Your task to perform on an android device: Is it going to rain tomorrow? Image 0: 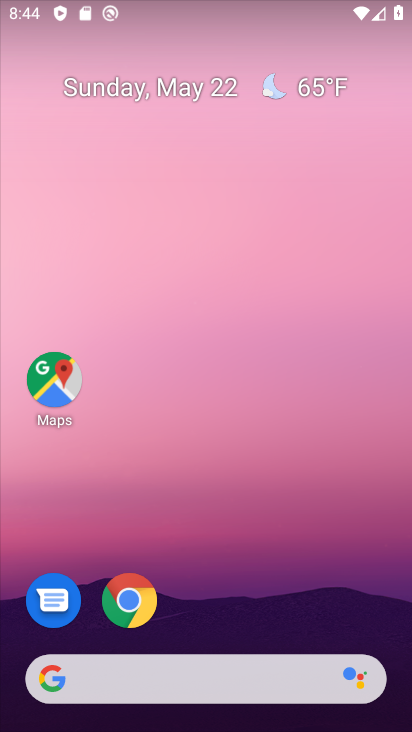
Step 0: drag from (230, 594) to (172, 227)
Your task to perform on an android device: Is it going to rain tomorrow? Image 1: 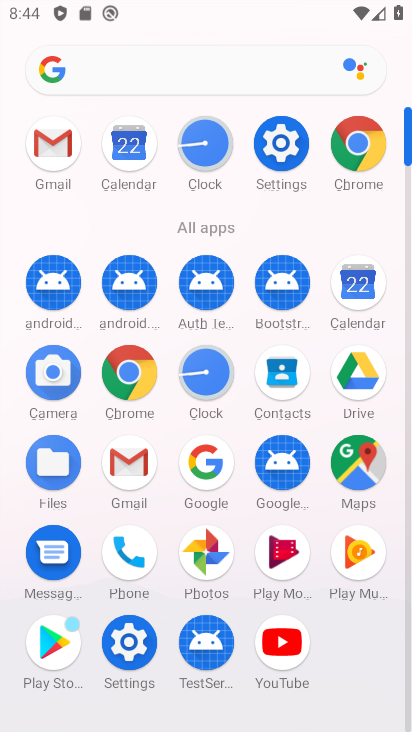
Step 1: click (198, 483)
Your task to perform on an android device: Is it going to rain tomorrow? Image 2: 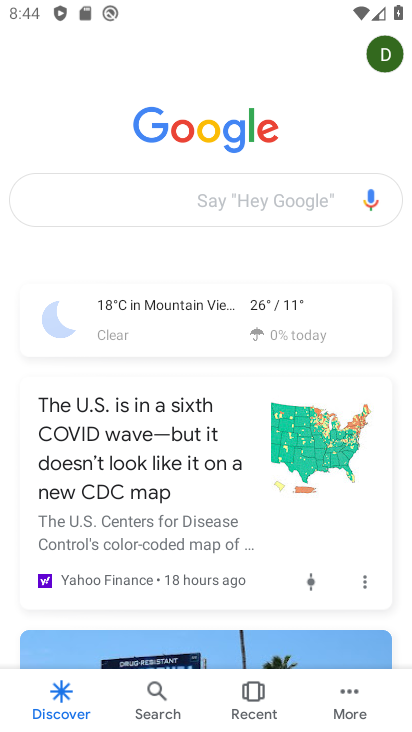
Step 2: click (164, 196)
Your task to perform on an android device: Is it going to rain tomorrow? Image 3: 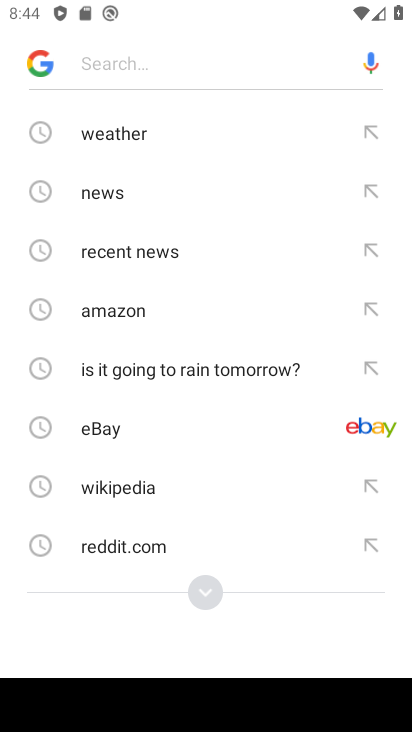
Step 3: click (122, 131)
Your task to perform on an android device: Is it going to rain tomorrow? Image 4: 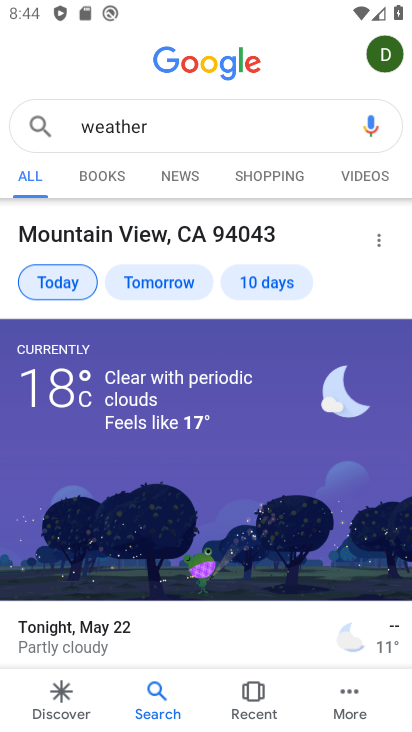
Step 4: click (160, 263)
Your task to perform on an android device: Is it going to rain tomorrow? Image 5: 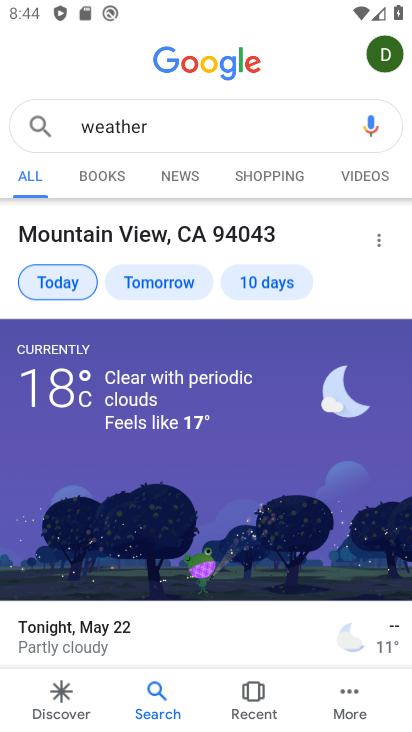
Step 5: click (155, 282)
Your task to perform on an android device: Is it going to rain tomorrow? Image 6: 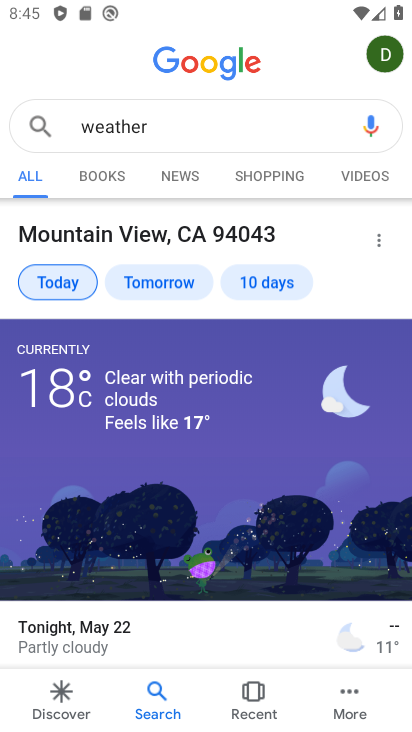
Step 6: click (155, 282)
Your task to perform on an android device: Is it going to rain tomorrow? Image 7: 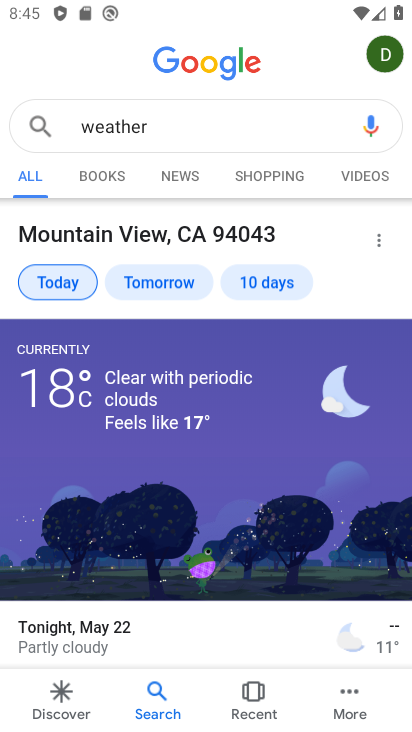
Step 7: click (155, 282)
Your task to perform on an android device: Is it going to rain tomorrow? Image 8: 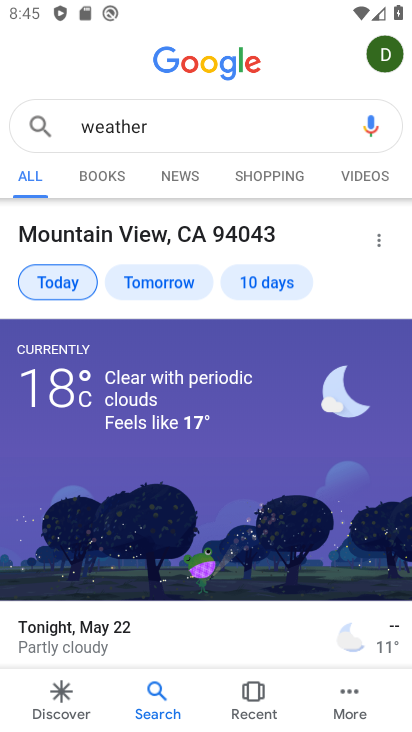
Step 8: click (155, 282)
Your task to perform on an android device: Is it going to rain tomorrow? Image 9: 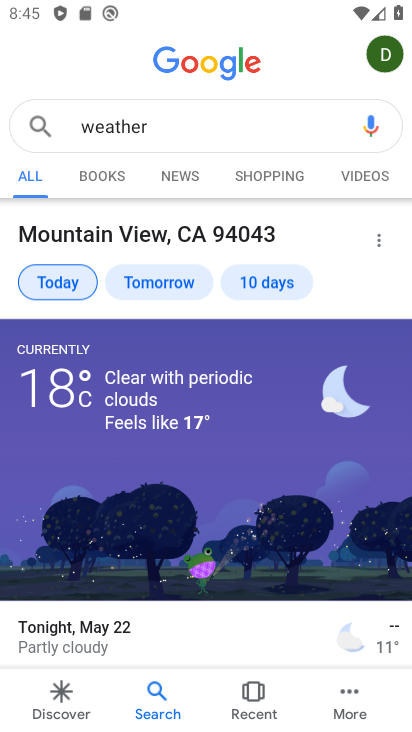
Step 9: click (155, 282)
Your task to perform on an android device: Is it going to rain tomorrow? Image 10: 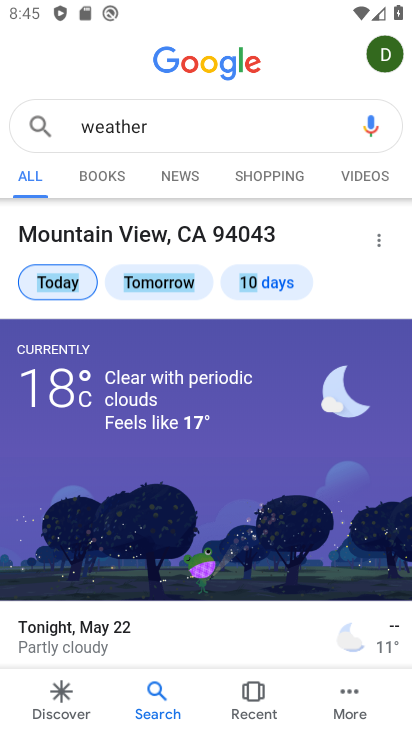
Step 10: click (155, 282)
Your task to perform on an android device: Is it going to rain tomorrow? Image 11: 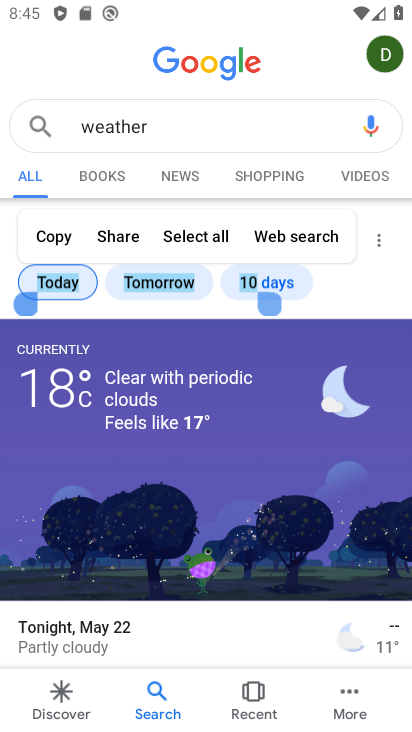
Step 11: click (155, 282)
Your task to perform on an android device: Is it going to rain tomorrow? Image 12: 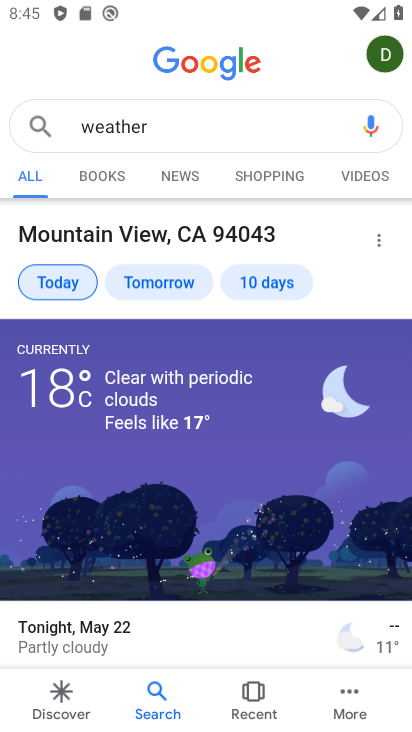
Step 12: click (155, 282)
Your task to perform on an android device: Is it going to rain tomorrow? Image 13: 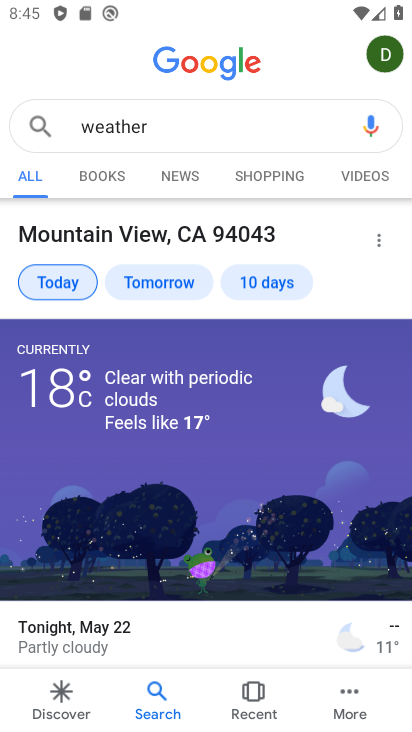
Step 13: click (164, 284)
Your task to perform on an android device: Is it going to rain tomorrow? Image 14: 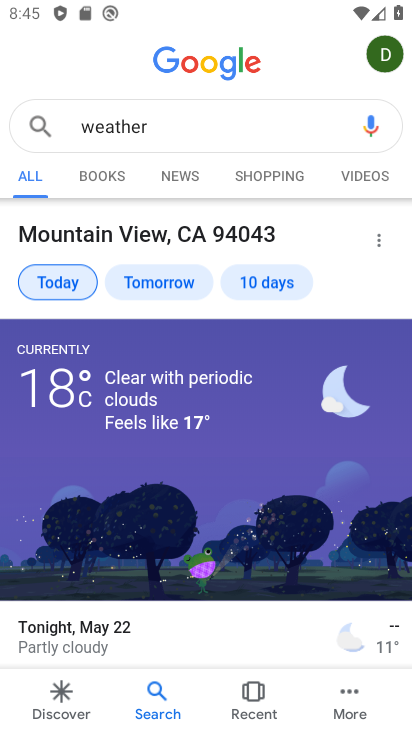
Step 14: task complete